Your task to perform on an android device: Open accessibility settings Image 0: 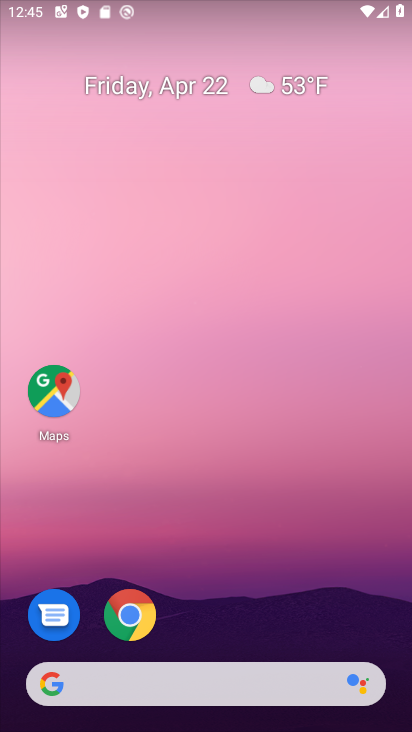
Step 0: drag from (374, 555) to (369, 3)
Your task to perform on an android device: Open accessibility settings Image 1: 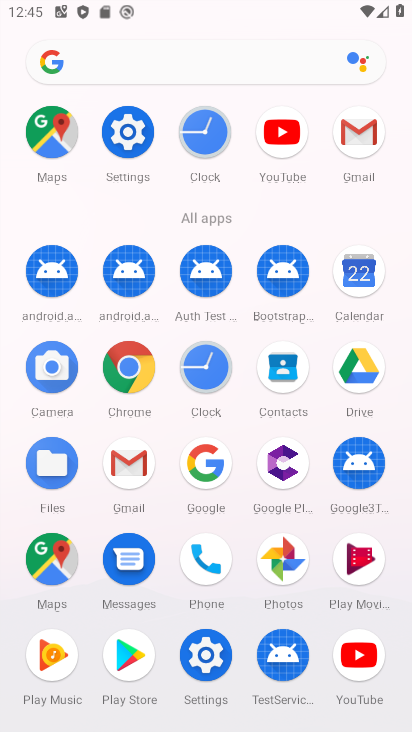
Step 1: click (130, 134)
Your task to perform on an android device: Open accessibility settings Image 2: 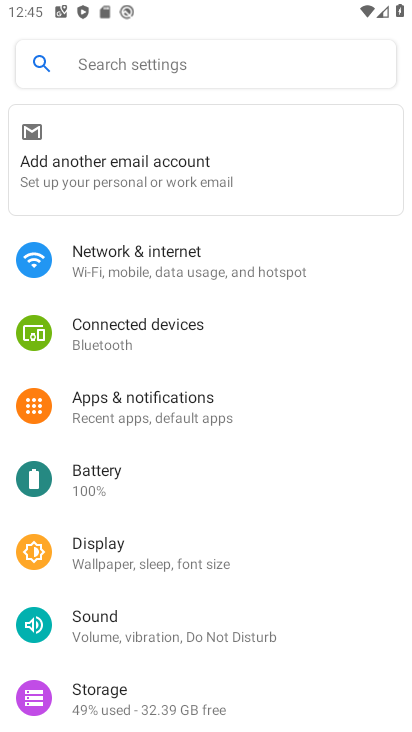
Step 2: drag from (331, 651) to (337, 402)
Your task to perform on an android device: Open accessibility settings Image 3: 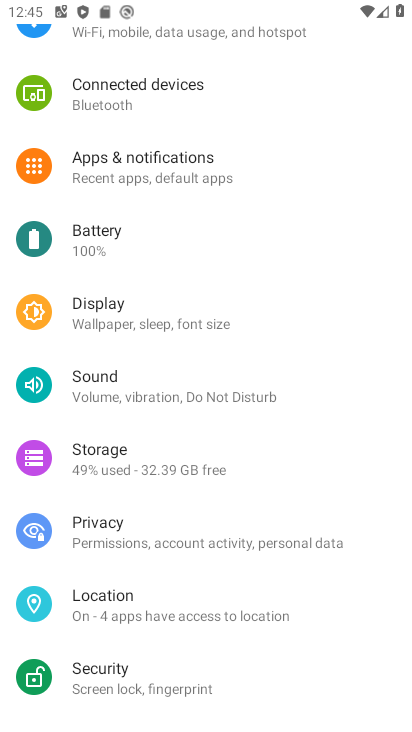
Step 3: drag from (351, 549) to (338, 339)
Your task to perform on an android device: Open accessibility settings Image 4: 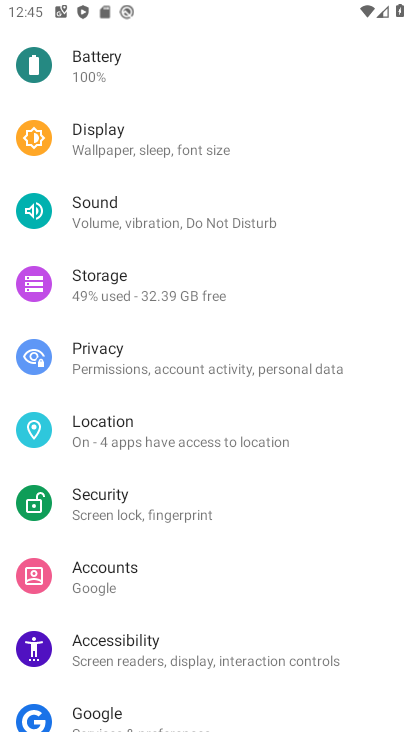
Step 4: drag from (357, 608) to (362, 414)
Your task to perform on an android device: Open accessibility settings Image 5: 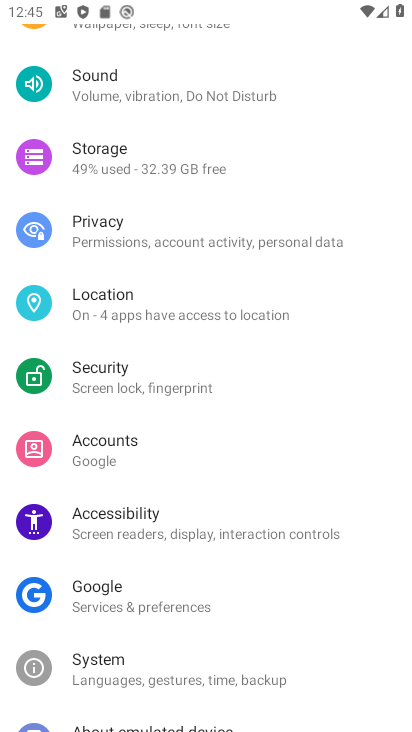
Step 5: click (114, 521)
Your task to perform on an android device: Open accessibility settings Image 6: 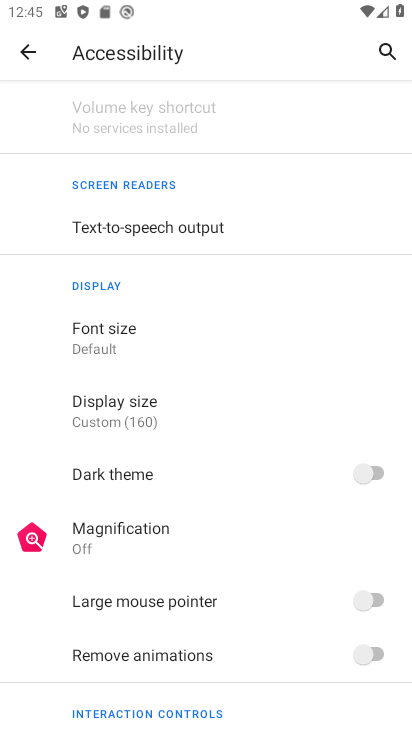
Step 6: task complete